Your task to perform on an android device: Open sound settings Image 0: 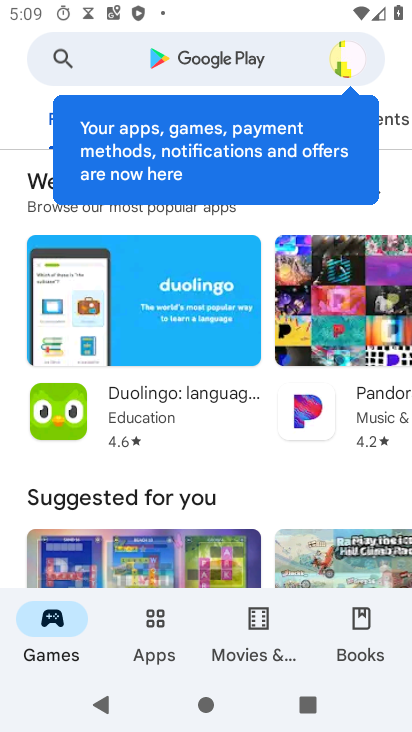
Step 0: press back button
Your task to perform on an android device: Open sound settings Image 1: 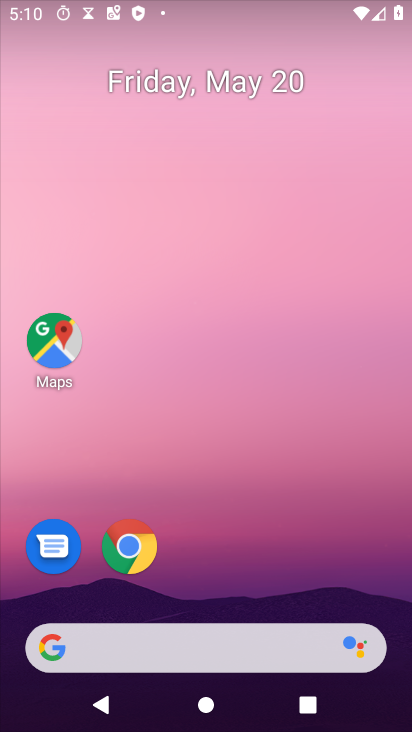
Step 1: drag from (271, 542) to (187, 11)
Your task to perform on an android device: Open sound settings Image 2: 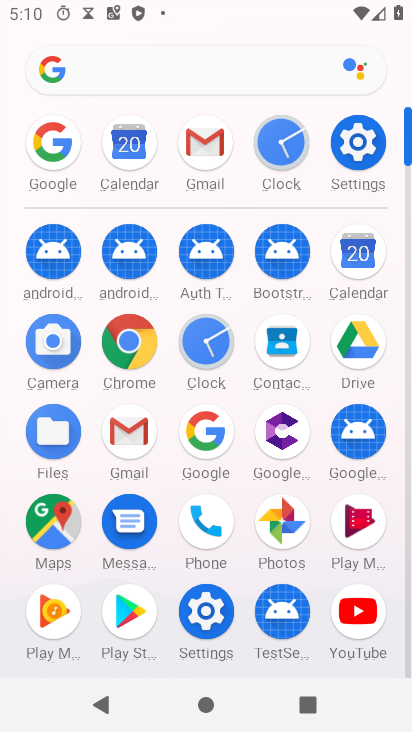
Step 2: click (363, 146)
Your task to perform on an android device: Open sound settings Image 3: 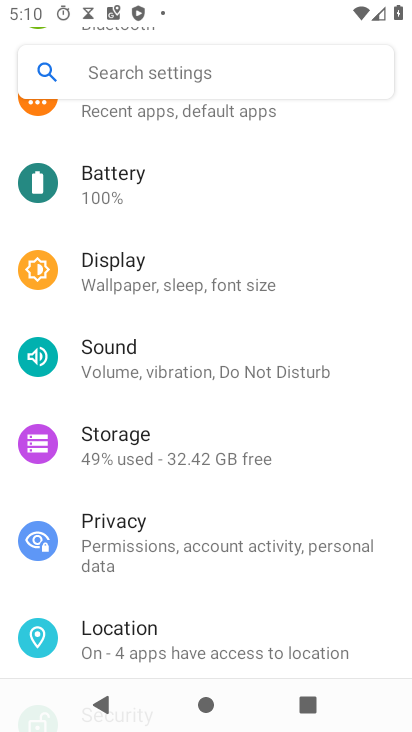
Step 3: click (149, 364)
Your task to perform on an android device: Open sound settings Image 4: 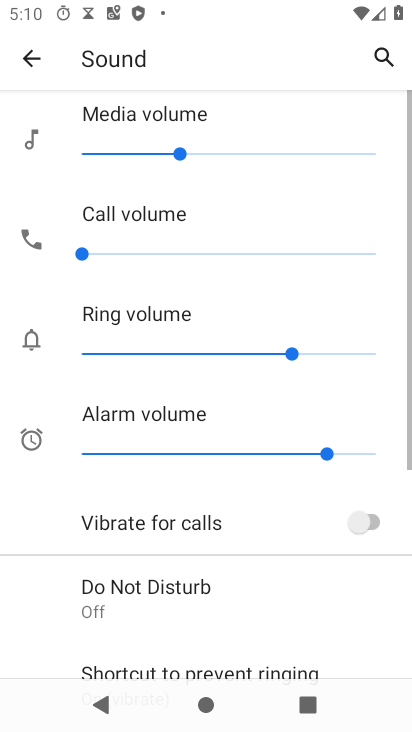
Step 4: task complete